Your task to perform on an android device: find snoozed emails in the gmail app Image 0: 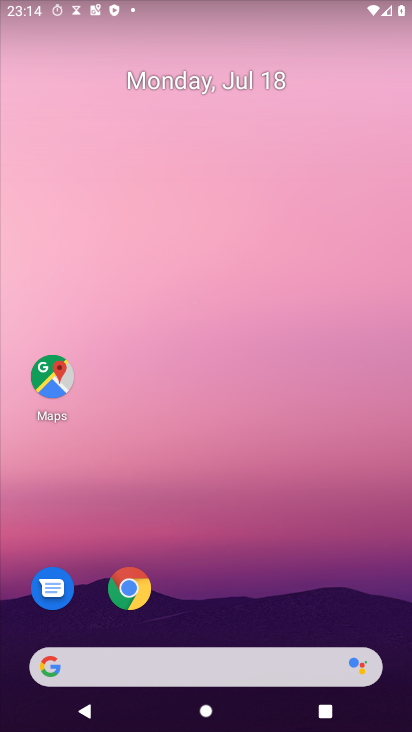
Step 0: drag from (192, 673) to (302, 187)
Your task to perform on an android device: find snoozed emails in the gmail app Image 1: 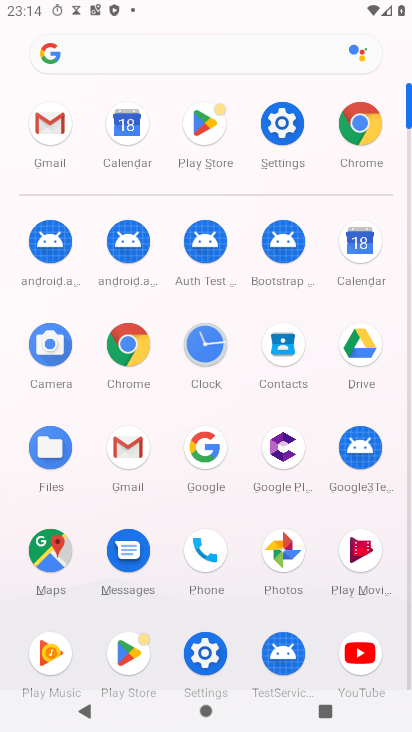
Step 1: click (51, 131)
Your task to perform on an android device: find snoozed emails in the gmail app Image 2: 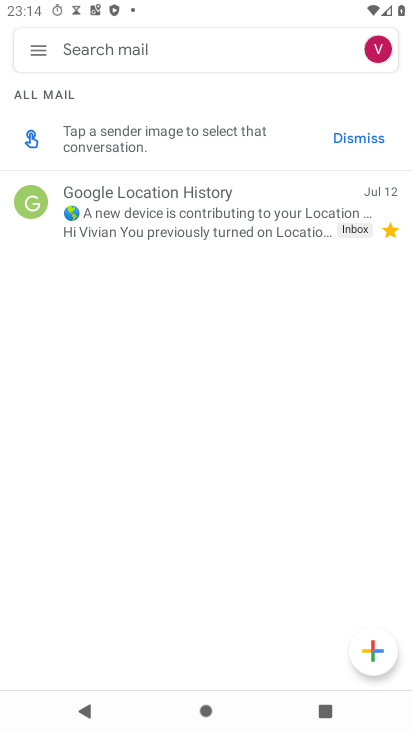
Step 2: click (40, 50)
Your task to perform on an android device: find snoozed emails in the gmail app Image 3: 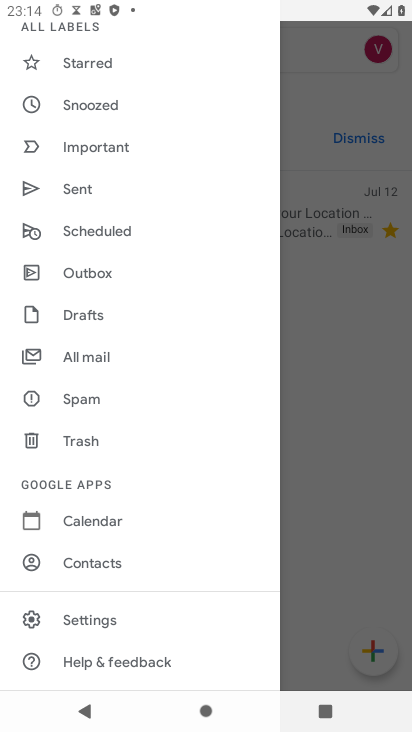
Step 3: click (94, 106)
Your task to perform on an android device: find snoozed emails in the gmail app Image 4: 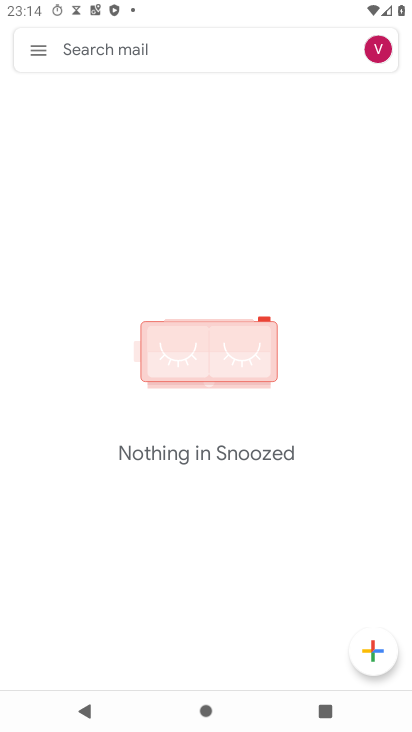
Step 4: task complete